Your task to perform on an android device: Open Google Chrome and open the bookmarks view Image 0: 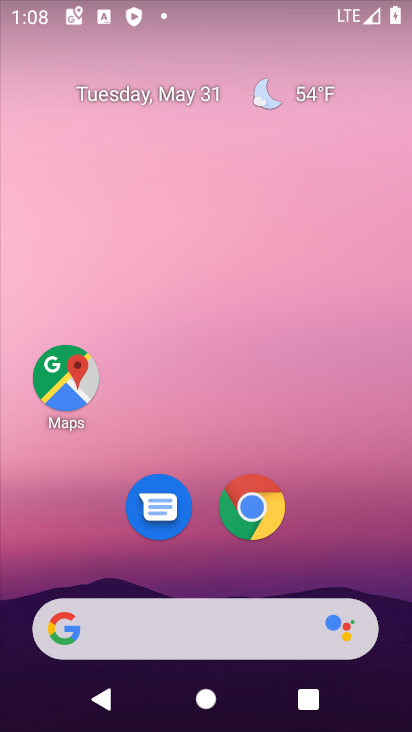
Step 0: drag from (393, 649) to (306, 17)
Your task to perform on an android device: Open Google Chrome and open the bookmarks view Image 1: 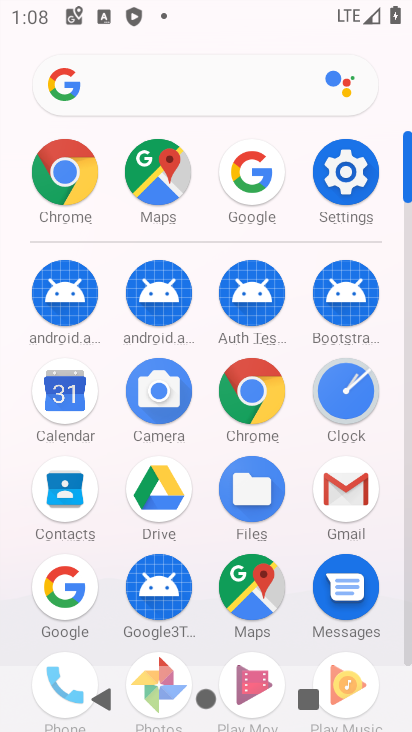
Step 1: click (59, 174)
Your task to perform on an android device: Open Google Chrome and open the bookmarks view Image 2: 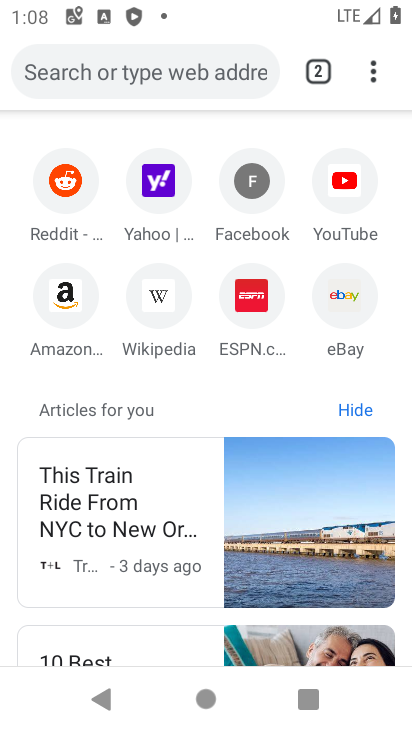
Step 2: click (372, 72)
Your task to perform on an android device: Open Google Chrome and open the bookmarks view Image 3: 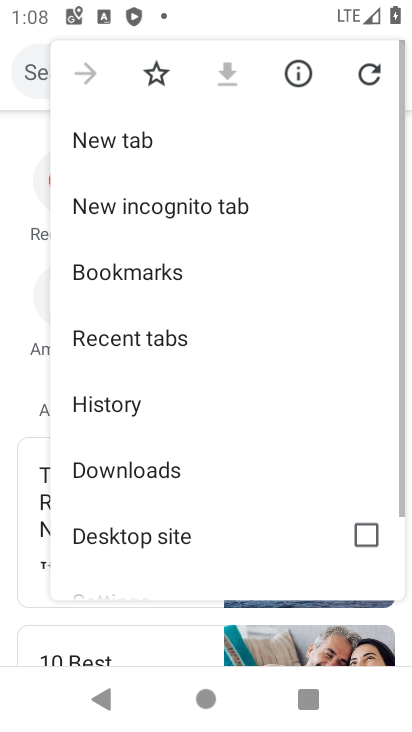
Step 3: click (158, 278)
Your task to perform on an android device: Open Google Chrome and open the bookmarks view Image 4: 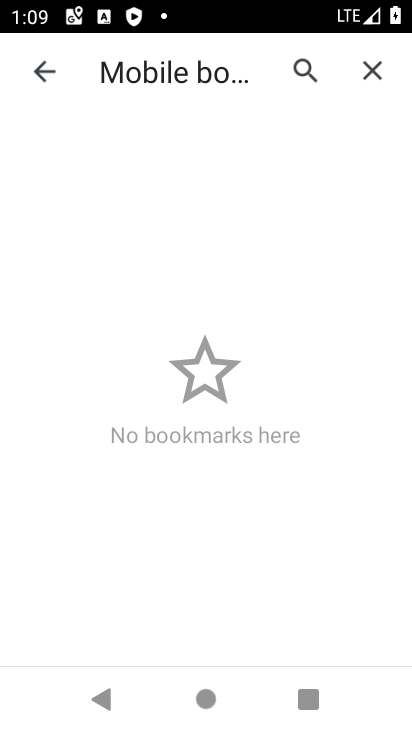
Step 4: task complete